Your task to perform on an android device: open device folders in google photos Image 0: 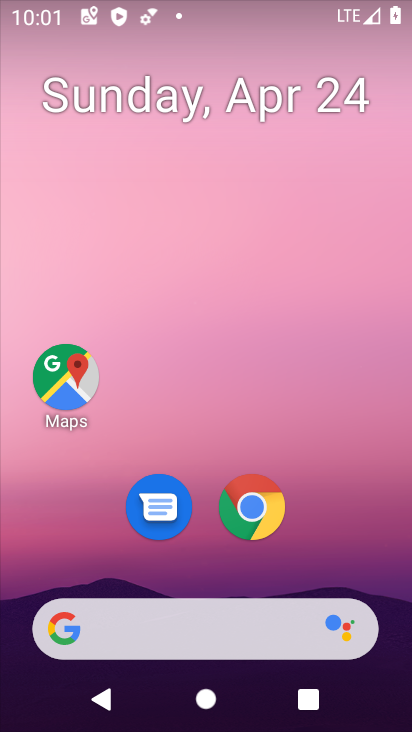
Step 0: drag from (189, 564) to (217, 192)
Your task to perform on an android device: open device folders in google photos Image 1: 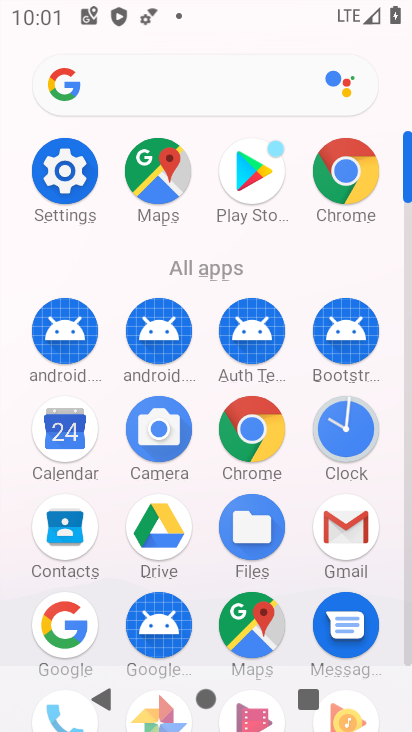
Step 1: drag from (204, 656) to (217, 305)
Your task to perform on an android device: open device folders in google photos Image 2: 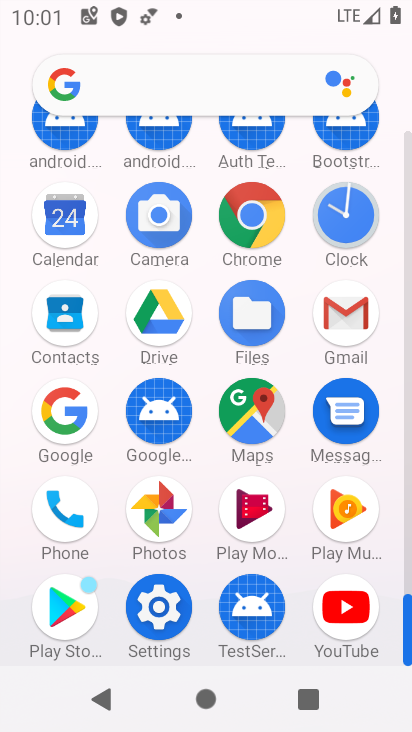
Step 2: click (162, 509)
Your task to perform on an android device: open device folders in google photos Image 3: 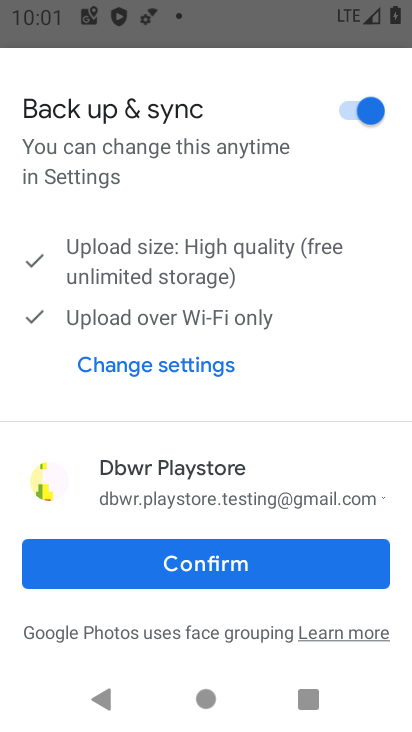
Step 3: click (216, 572)
Your task to perform on an android device: open device folders in google photos Image 4: 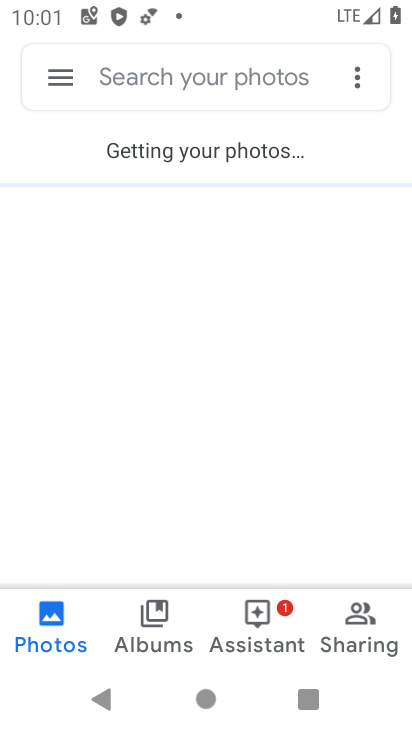
Step 4: click (50, 72)
Your task to perform on an android device: open device folders in google photos Image 5: 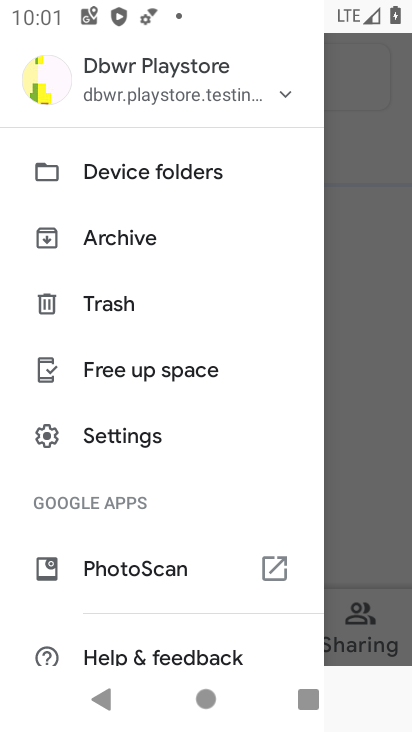
Step 5: click (127, 164)
Your task to perform on an android device: open device folders in google photos Image 6: 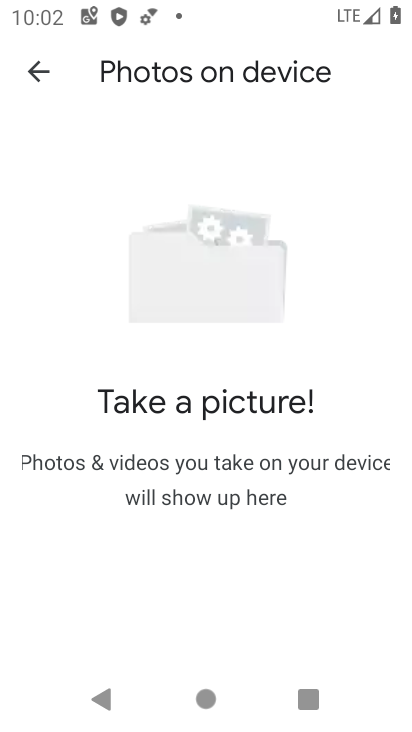
Step 6: task complete